Your task to perform on an android device: turn on sleep mode Image 0: 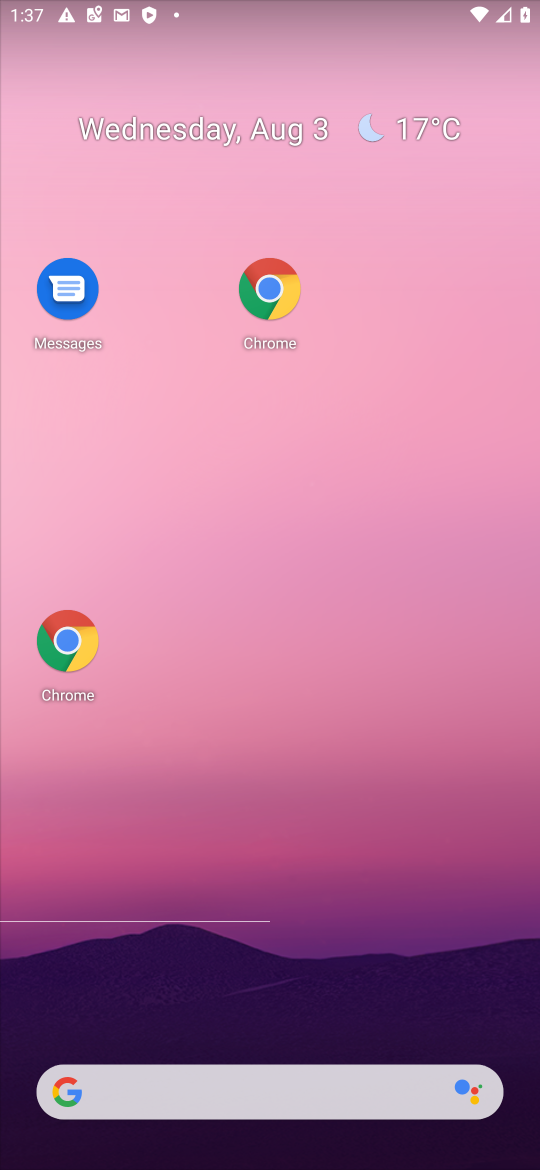
Step 0: drag from (378, 946) to (367, 198)
Your task to perform on an android device: turn on sleep mode Image 1: 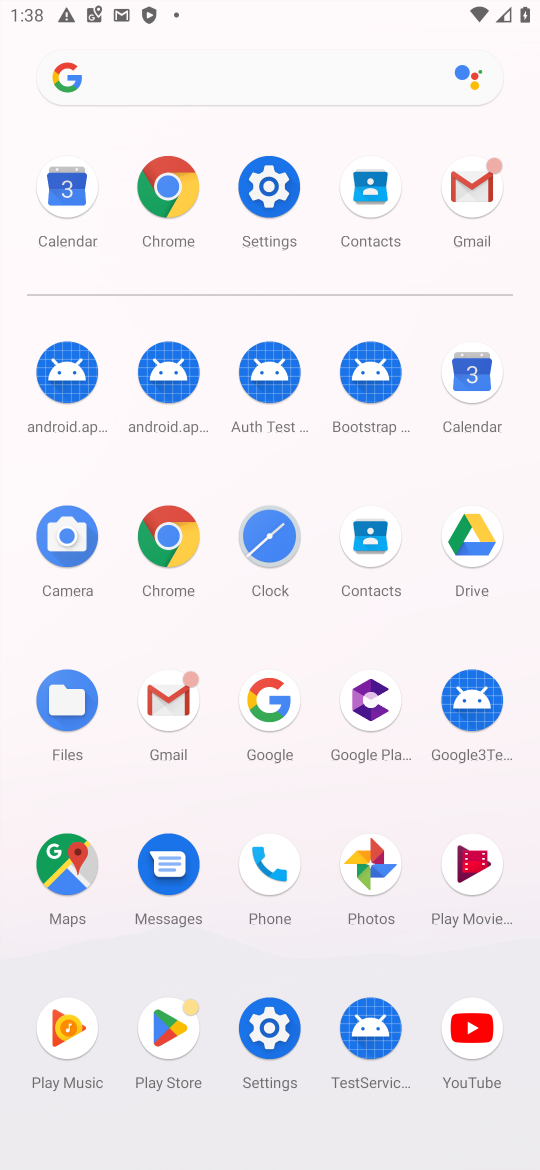
Step 1: click (272, 1067)
Your task to perform on an android device: turn on sleep mode Image 2: 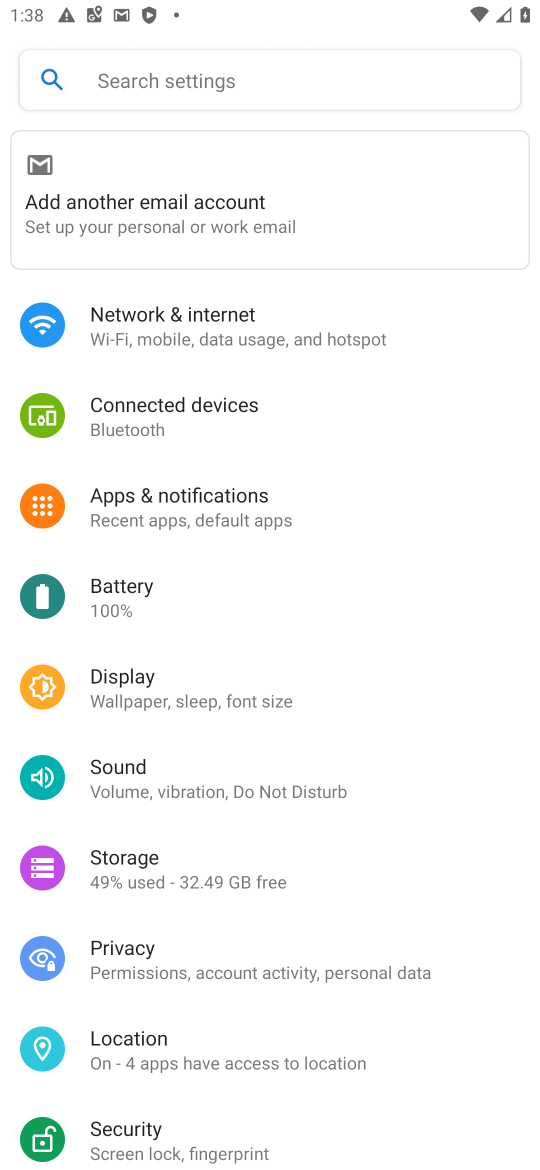
Step 2: click (253, 724)
Your task to perform on an android device: turn on sleep mode Image 3: 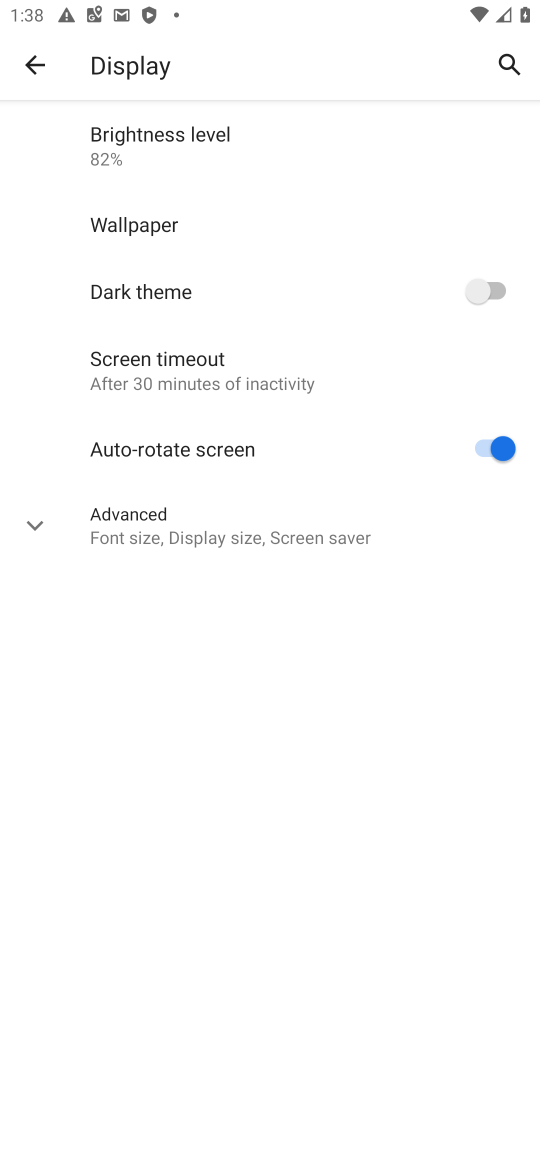
Step 3: task complete